Your task to perform on an android device: See recent photos Image 0: 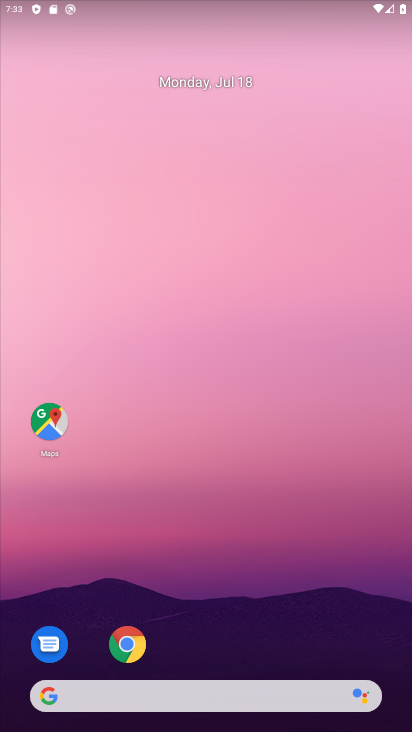
Step 0: drag from (262, 705) to (281, 168)
Your task to perform on an android device: See recent photos Image 1: 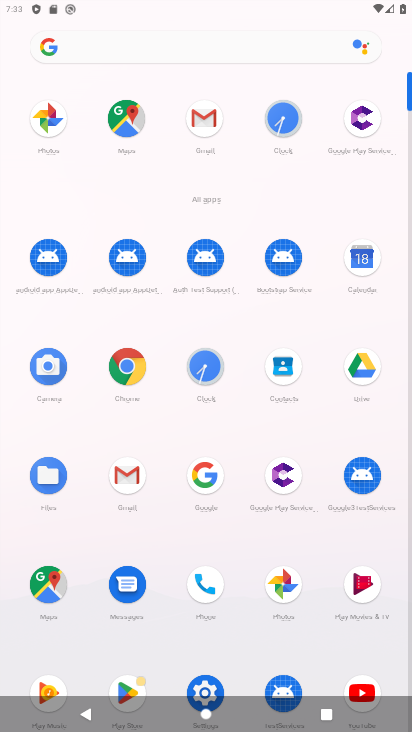
Step 1: click (281, 582)
Your task to perform on an android device: See recent photos Image 2: 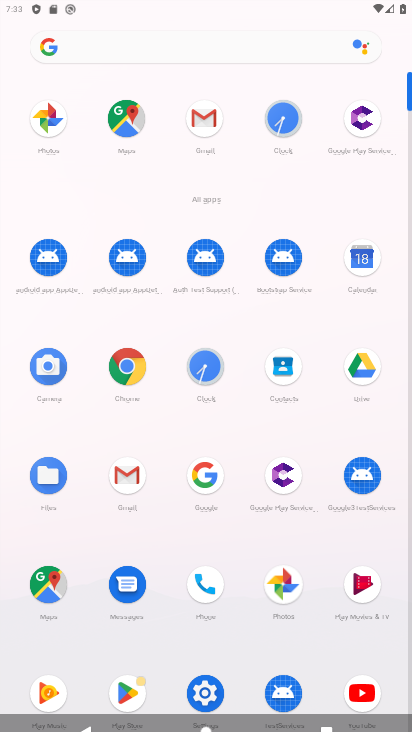
Step 2: click (282, 583)
Your task to perform on an android device: See recent photos Image 3: 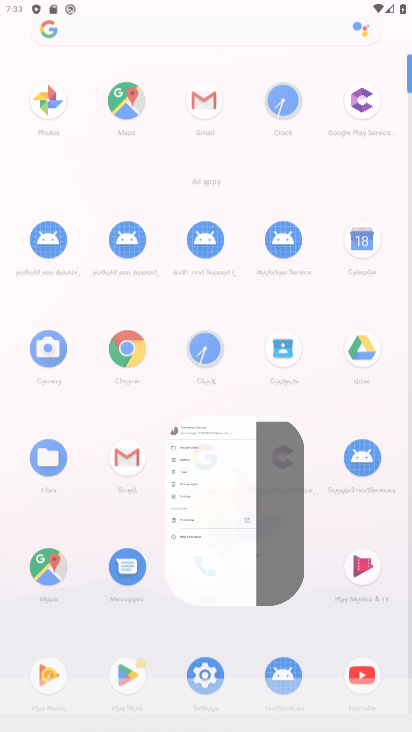
Step 3: click (284, 583)
Your task to perform on an android device: See recent photos Image 4: 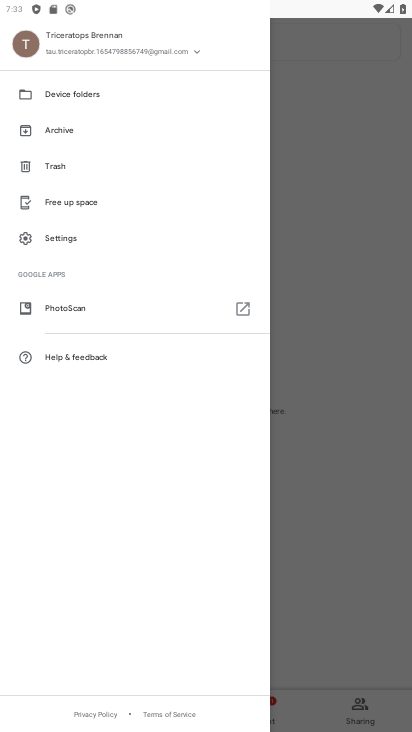
Step 4: click (336, 408)
Your task to perform on an android device: See recent photos Image 5: 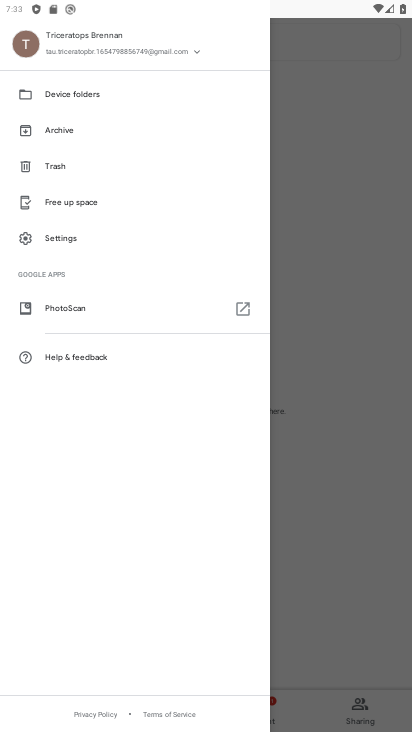
Step 5: click (337, 409)
Your task to perform on an android device: See recent photos Image 6: 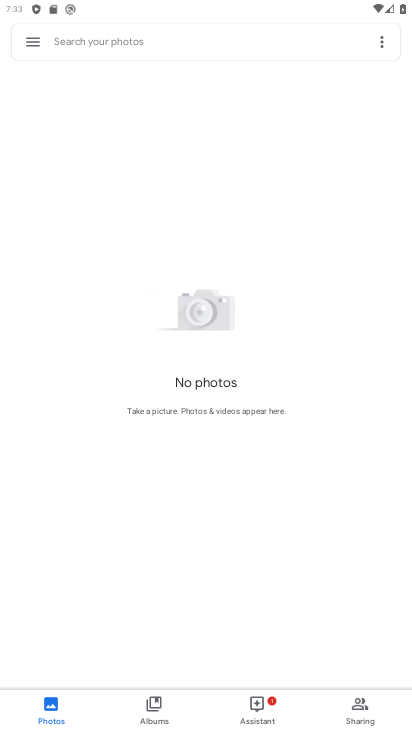
Step 6: click (339, 399)
Your task to perform on an android device: See recent photos Image 7: 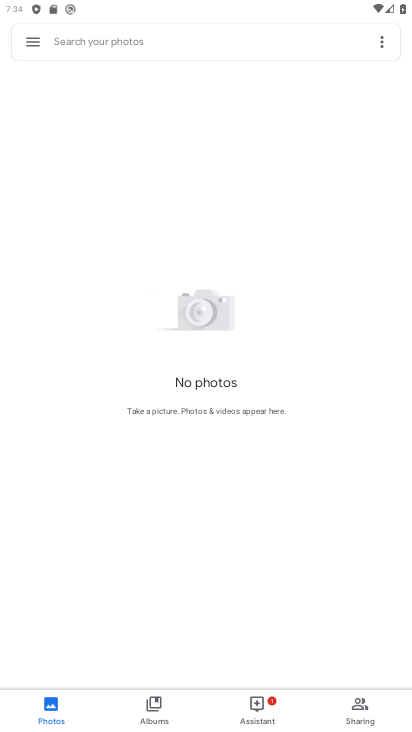
Step 7: click (38, 711)
Your task to perform on an android device: See recent photos Image 8: 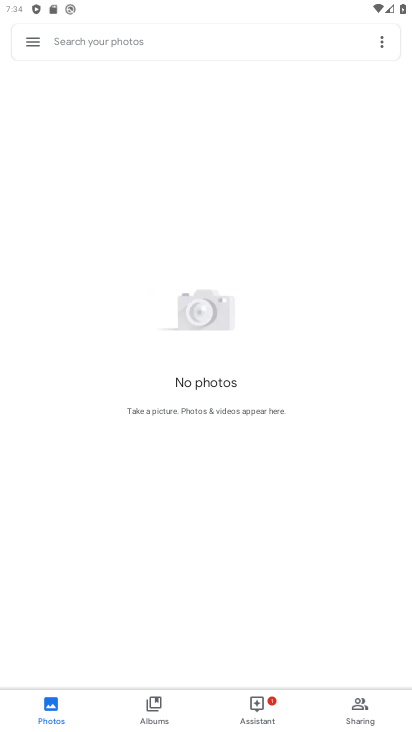
Step 8: click (46, 696)
Your task to perform on an android device: See recent photos Image 9: 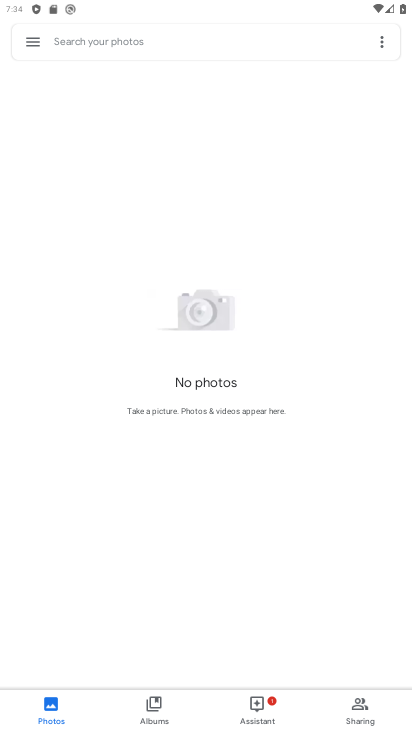
Step 9: task complete